Your task to perform on an android device: Open the phone app and click the voicemail tab. Image 0: 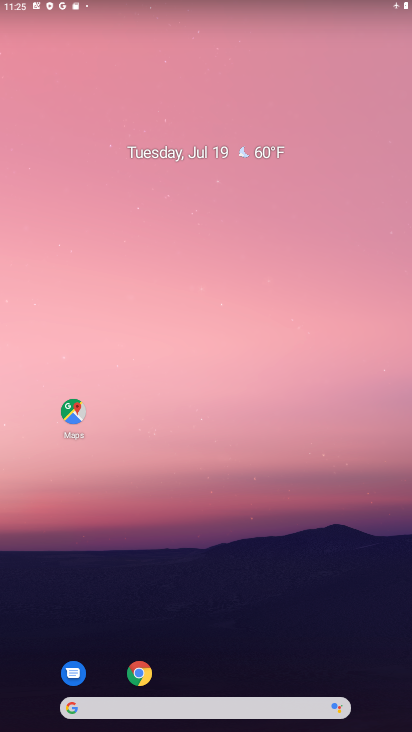
Step 0: drag from (387, 670) to (348, 101)
Your task to perform on an android device: Open the phone app and click the voicemail tab. Image 1: 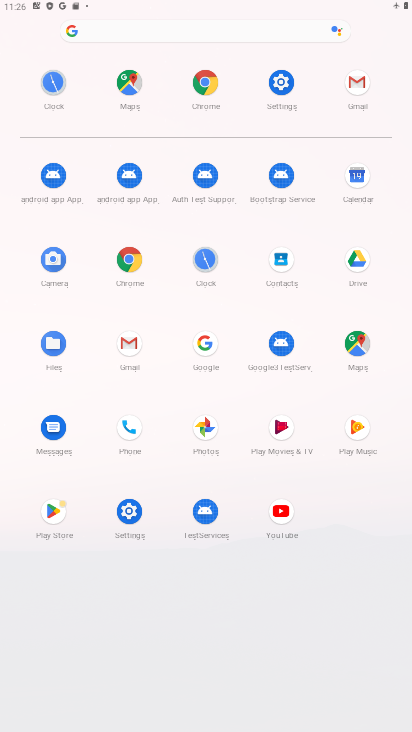
Step 1: click (123, 425)
Your task to perform on an android device: Open the phone app and click the voicemail tab. Image 2: 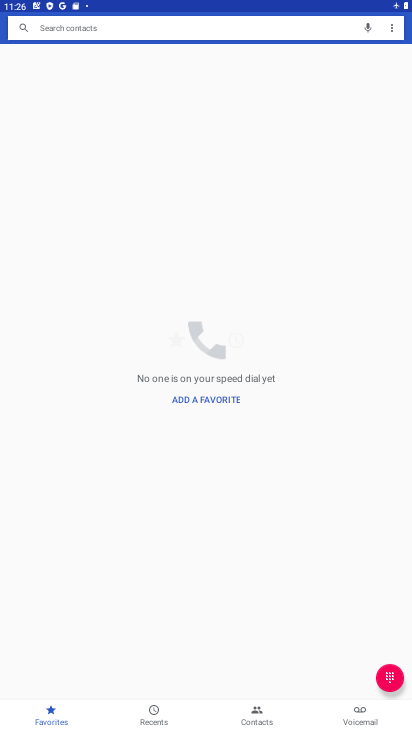
Step 2: click (354, 709)
Your task to perform on an android device: Open the phone app and click the voicemail tab. Image 3: 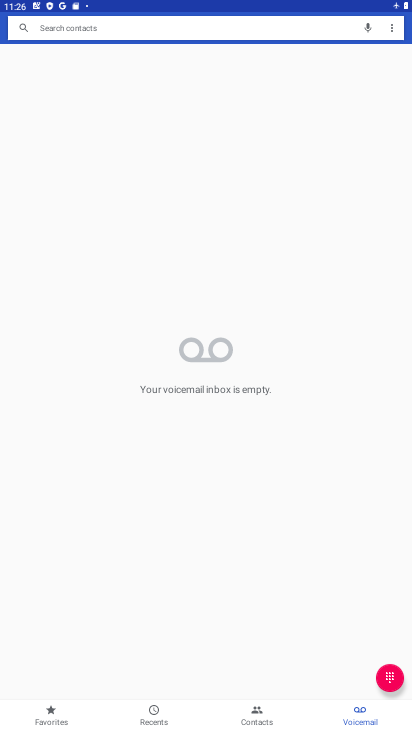
Step 3: task complete